Your task to perform on an android device: all mails in gmail Image 0: 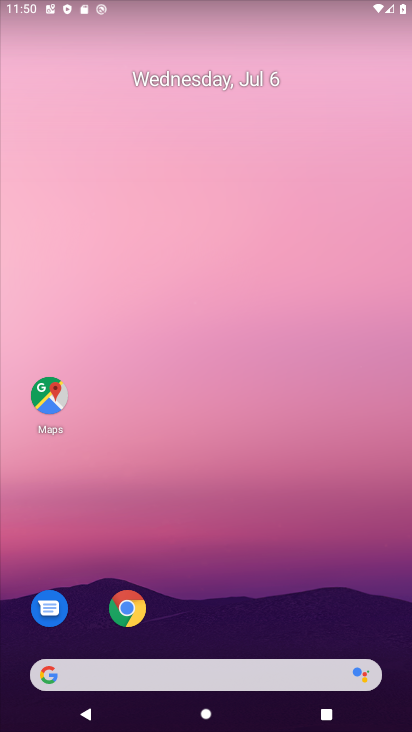
Step 0: drag from (148, 472) to (148, 275)
Your task to perform on an android device: all mails in gmail Image 1: 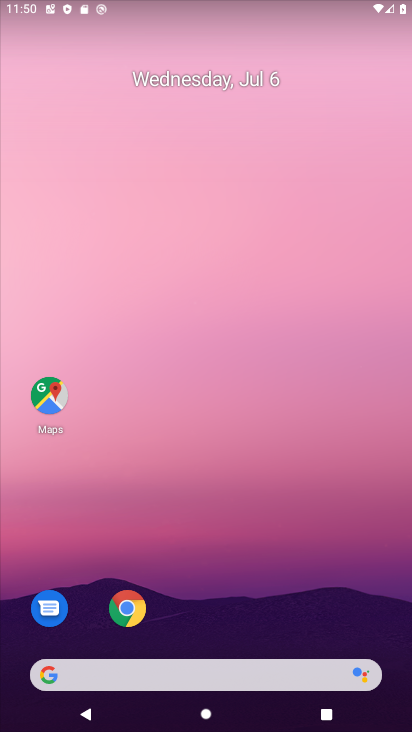
Step 1: drag from (167, 654) to (179, 169)
Your task to perform on an android device: all mails in gmail Image 2: 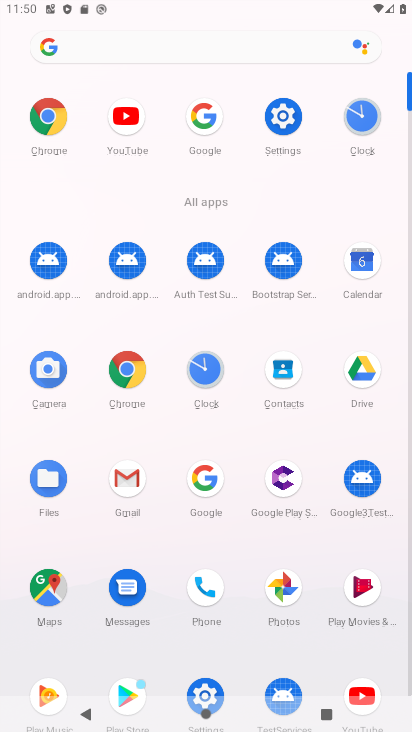
Step 2: click (134, 479)
Your task to perform on an android device: all mails in gmail Image 3: 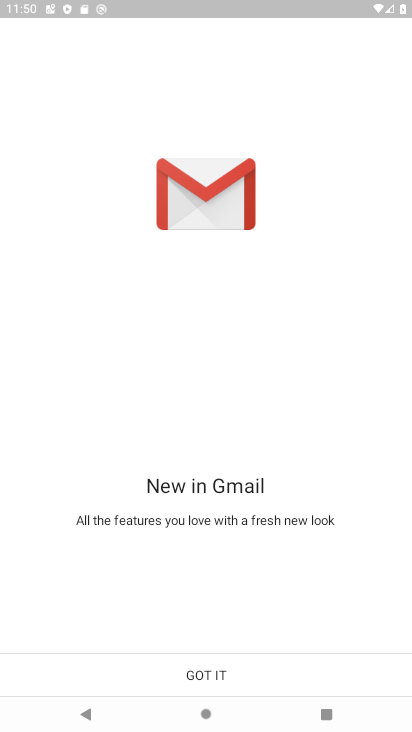
Step 3: click (206, 675)
Your task to perform on an android device: all mails in gmail Image 4: 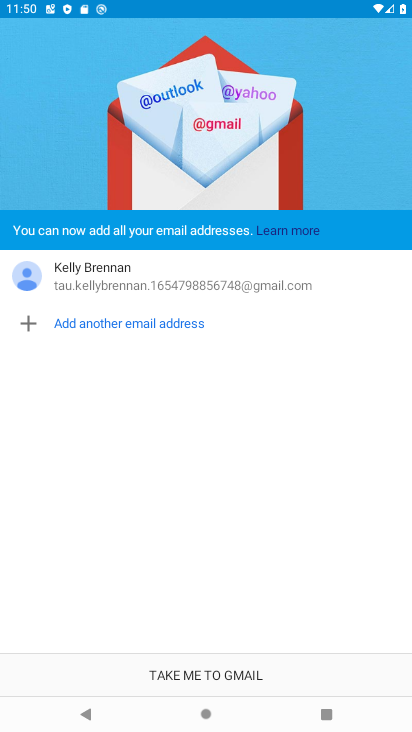
Step 4: click (199, 673)
Your task to perform on an android device: all mails in gmail Image 5: 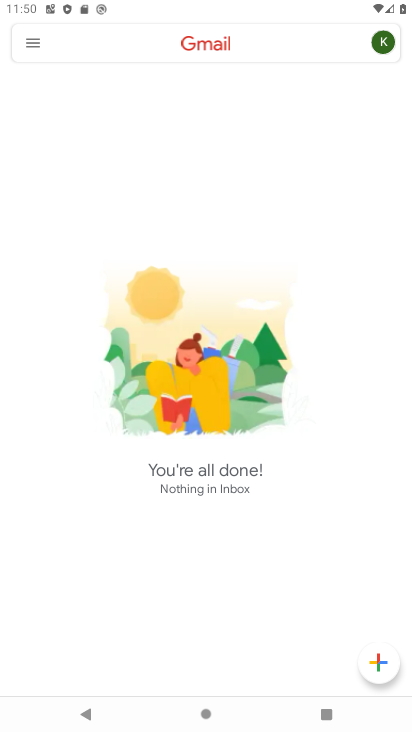
Step 5: click (32, 44)
Your task to perform on an android device: all mails in gmail Image 6: 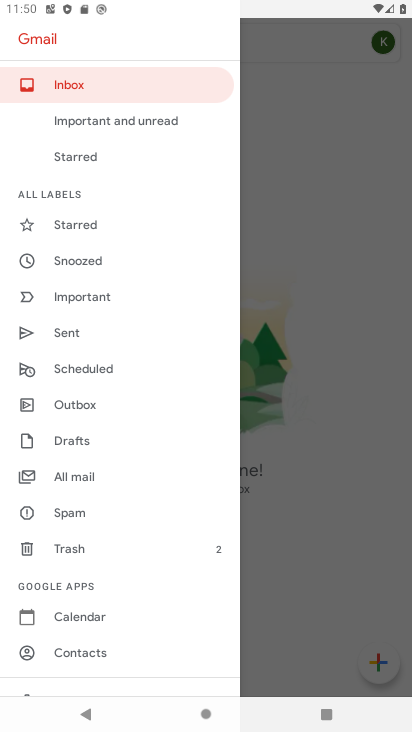
Step 6: click (71, 471)
Your task to perform on an android device: all mails in gmail Image 7: 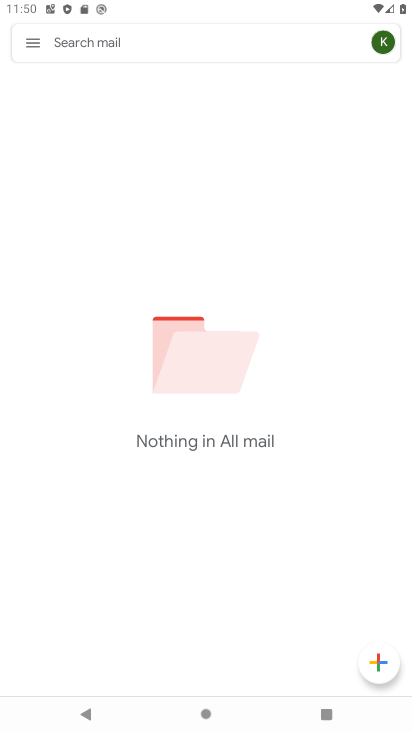
Step 7: task complete